Your task to perform on an android device: turn off location history Image 0: 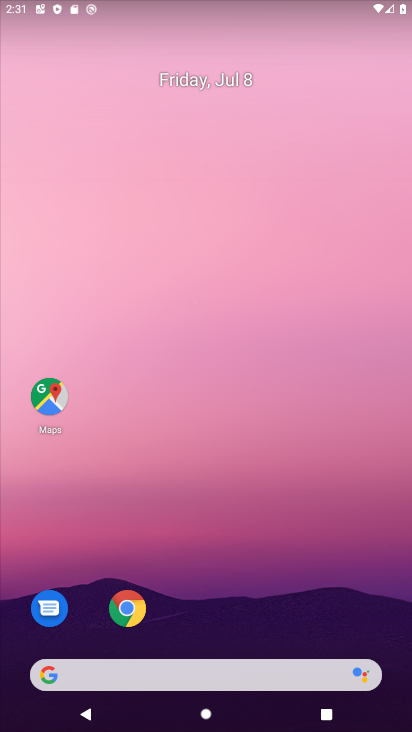
Step 0: drag from (346, 395) to (342, 176)
Your task to perform on an android device: turn off location history Image 1: 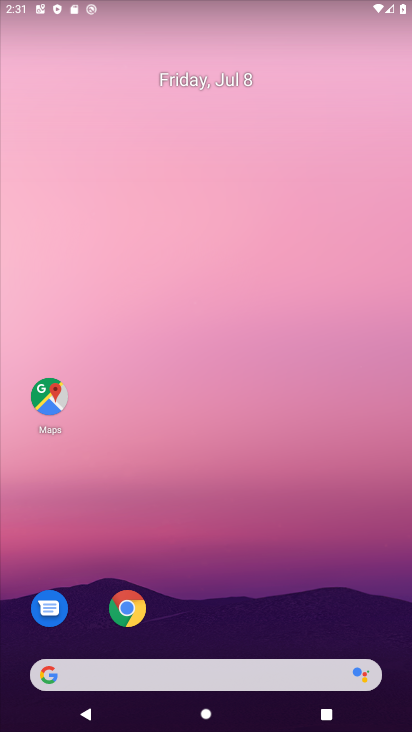
Step 1: drag from (270, 672) to (252, 112)
Your task to perform on an android device: turn off location history Image 2: 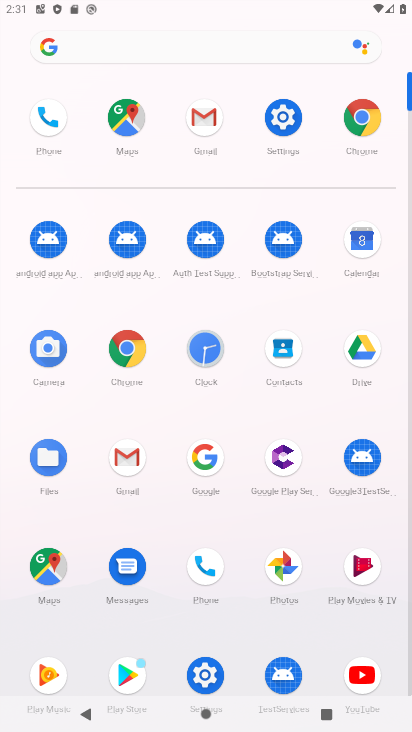
Step 2: click (288, 124)
Your task to perform on an android device: turn off location history Image 3: 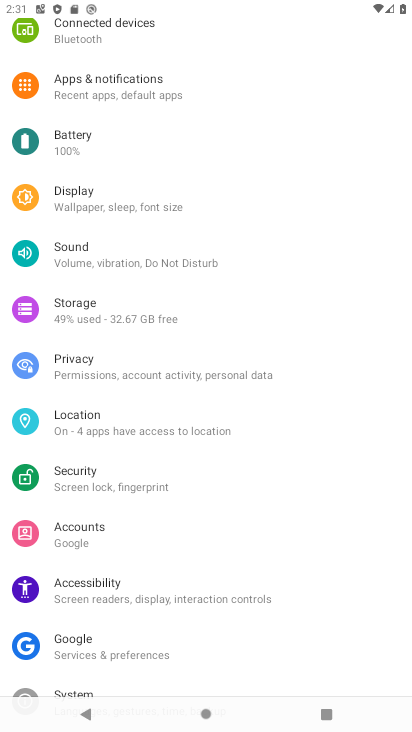
Step 3: click (83, 424)
Your task to perform on an android device: turn off location history Image 4: 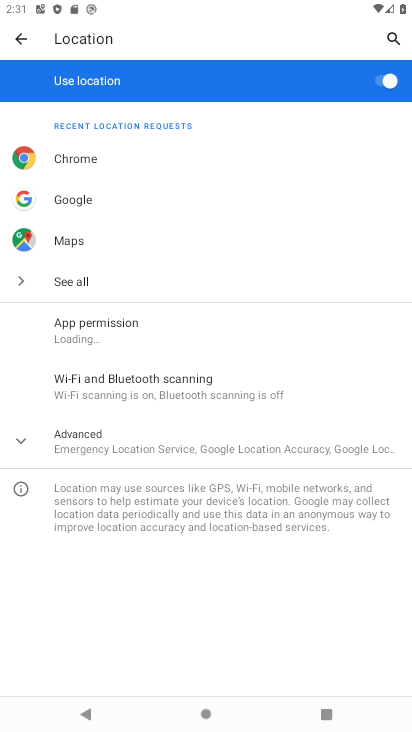
Step 4: click (151, 445)
Your task to perform on an android device: turn off location history Image 5: 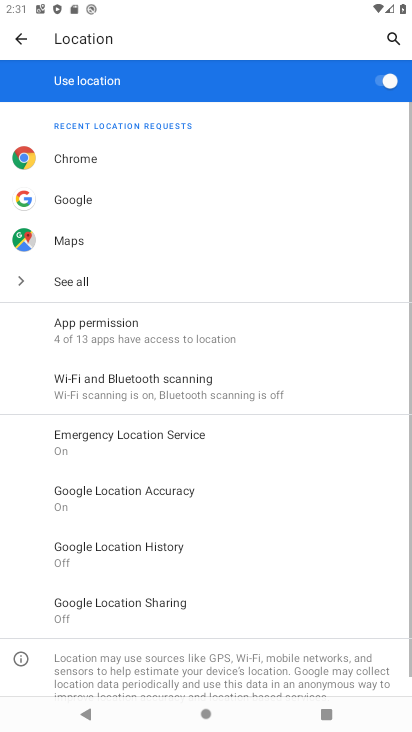
Step 5: click (140, 561)
Your task to perform on an android device: turn off location history Image 6: 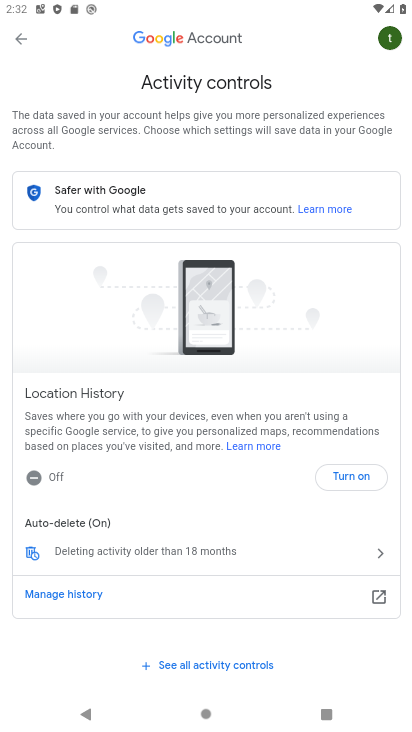
Step 6: task complete